Your task to perform on an android device: all mails in gmail Image 0: 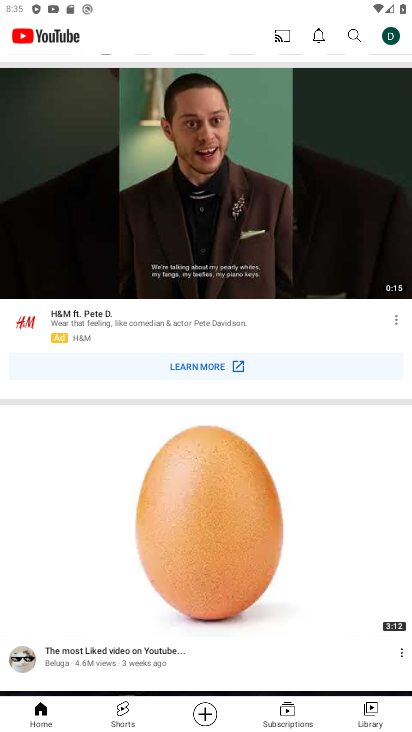
Step 0: press back button
Your task to perform on an android device: all mails in gmail Image 1: 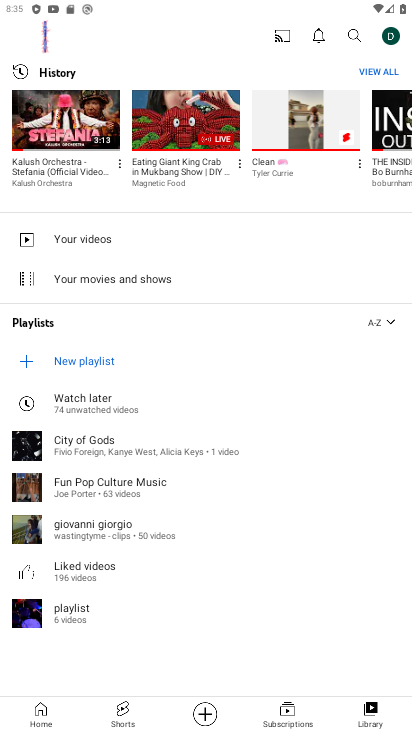
Step 1: press home button
Your task to perform on an android device: all mails in gmail Image 2: 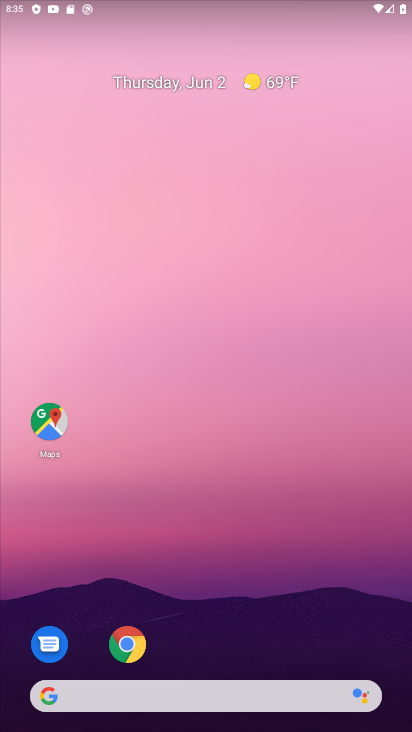
Step 2: drag from (227, 509) to (216, 6)
Your task to perform on an android device: all mails in gmail Image 3: 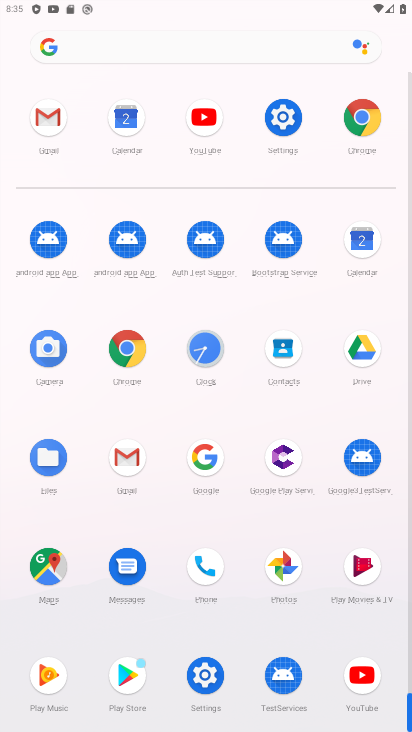
Step 3: click (45, 114)
Your task to perform on an android device: all mails in gmail Image 4: 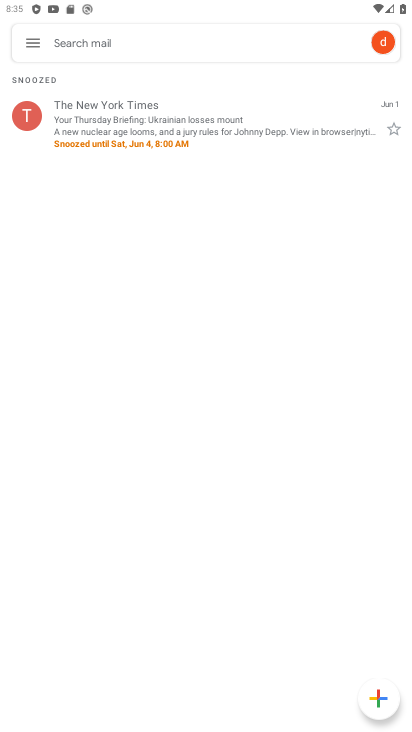
Step 4: click (35, 39)
Your task to perform on an android device: all mails in gmail Image 5: 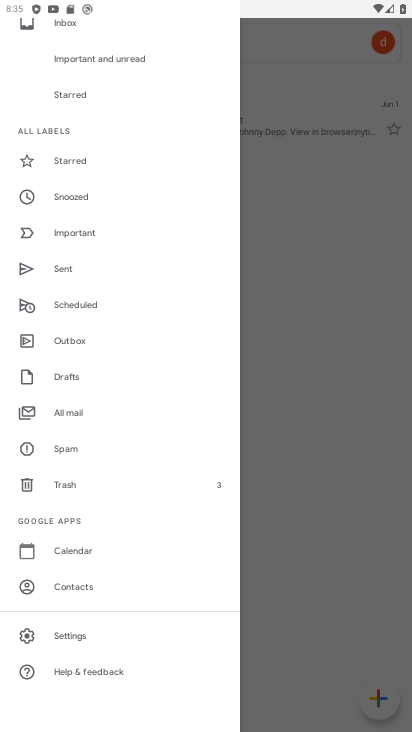
Step 5: click (67, 407)
Your task to perform on an android device: all mails in gmail Image 6: 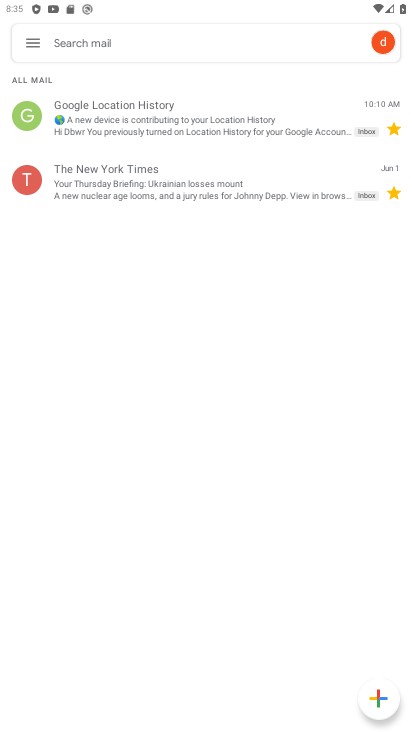
Step 6: click (28, 47)
Your task to perform on an android device: all mails in gmail Image 7: 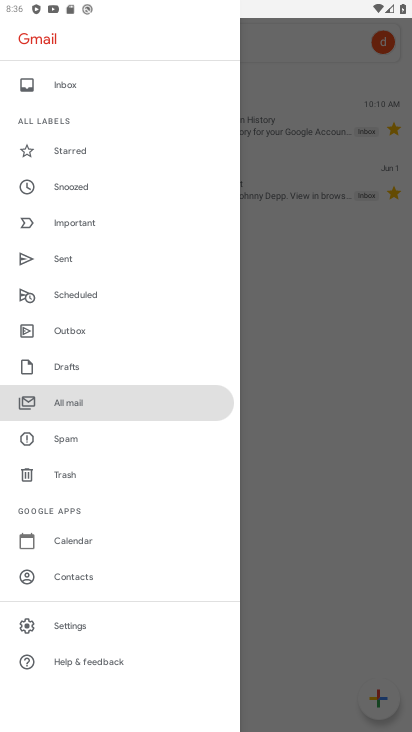
Step 7: click (86, 409)
Your task to perform on an android device: all mails in gmail Image 8: 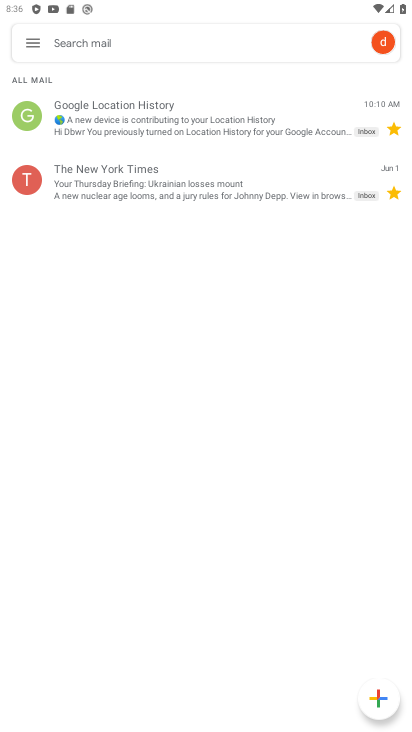
Step 8: task complete